Your task to perform on an android device: Open ESPN.com Image 0: 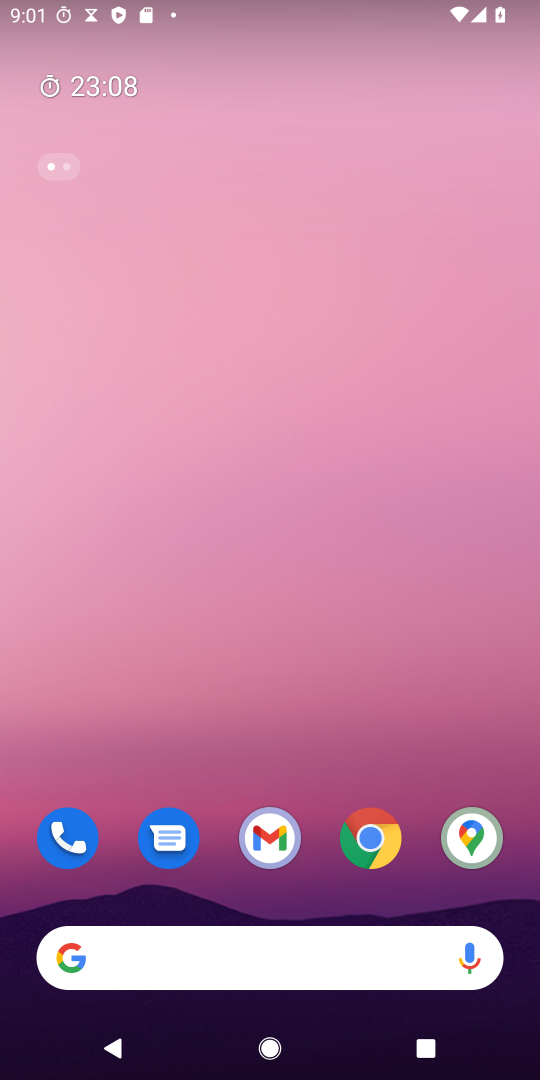
Step 0: press home button
Your task to perform on an android device: Open ESPN.com Image 1: 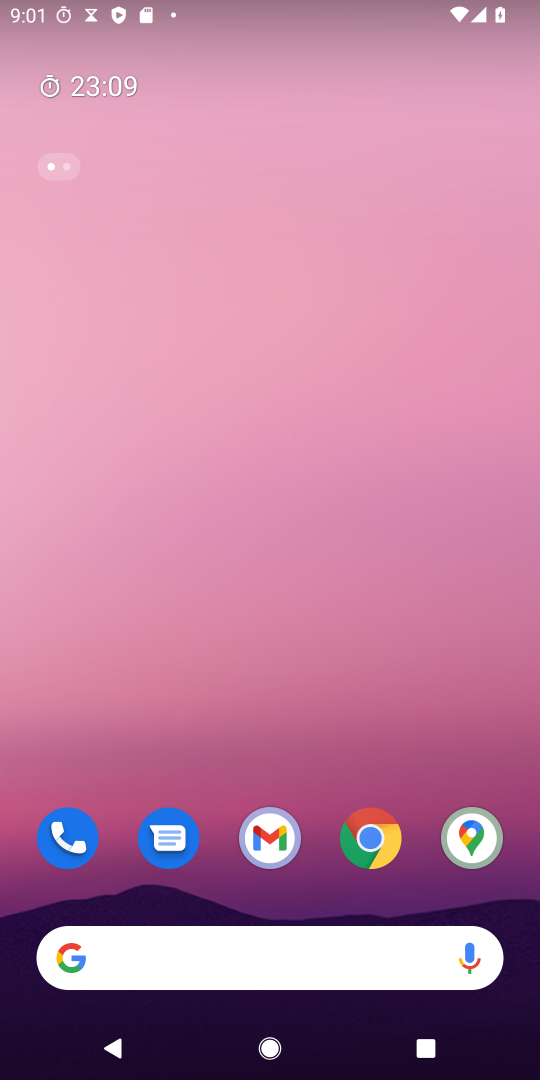
Step 1: drag from (222, 749) to (151, 16)
Your task to perform on an android device: Open ESPN.com Image 2: 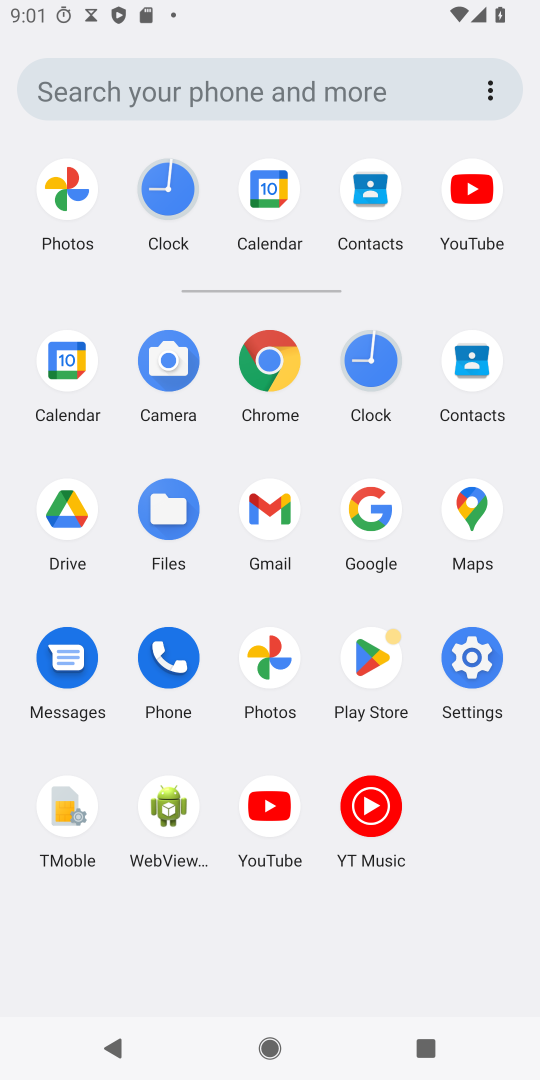
Step 2: click (229, 373)
Your task to perform on an android device: Open ESPN.com Image 3: 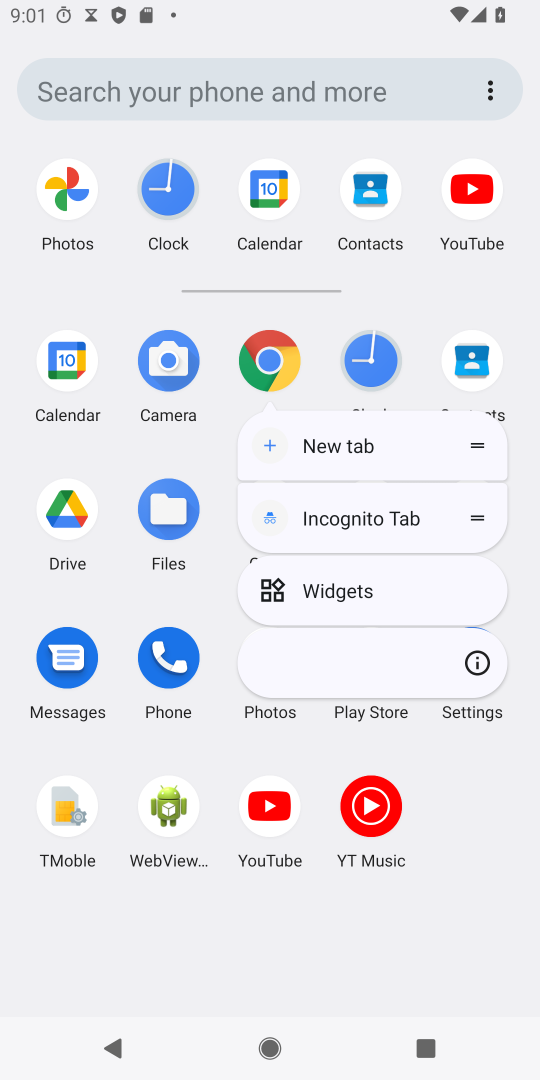
Step 3: click (266, 386)
Your task to perform on an android device: Open ESPN.com Image 4: 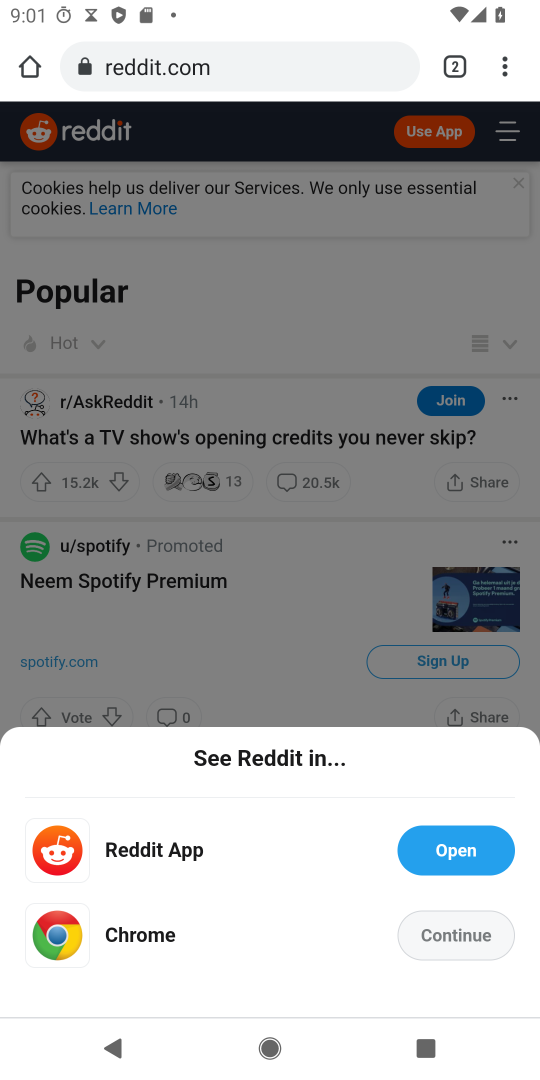
Step 4: click (209, 68)
Your task to perform on an android device: Open ESPN.com Image 5: 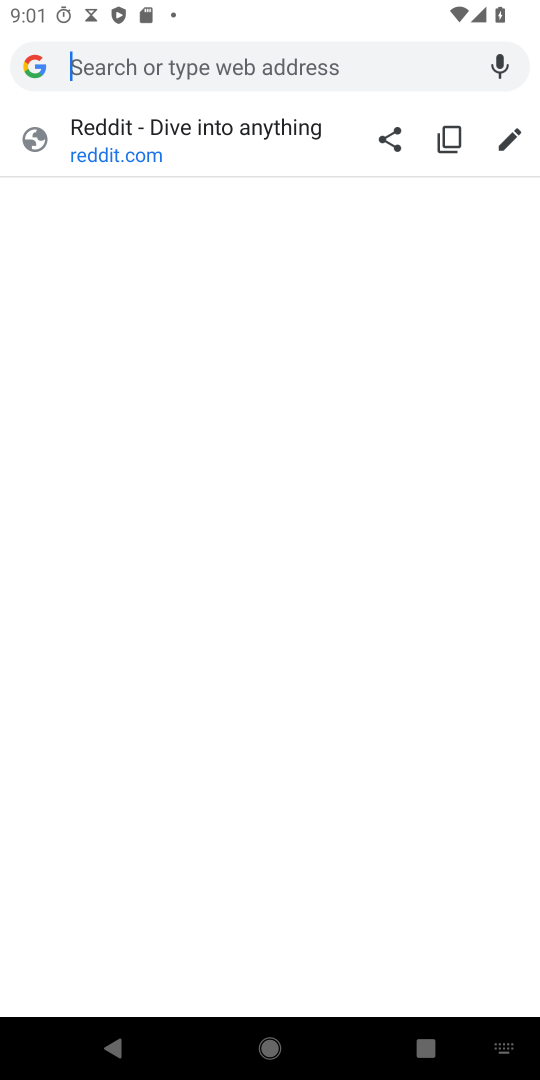
Step 5: type "ESPN.com"
Your task to perform on an android device: Open ESPN.com Image 6: 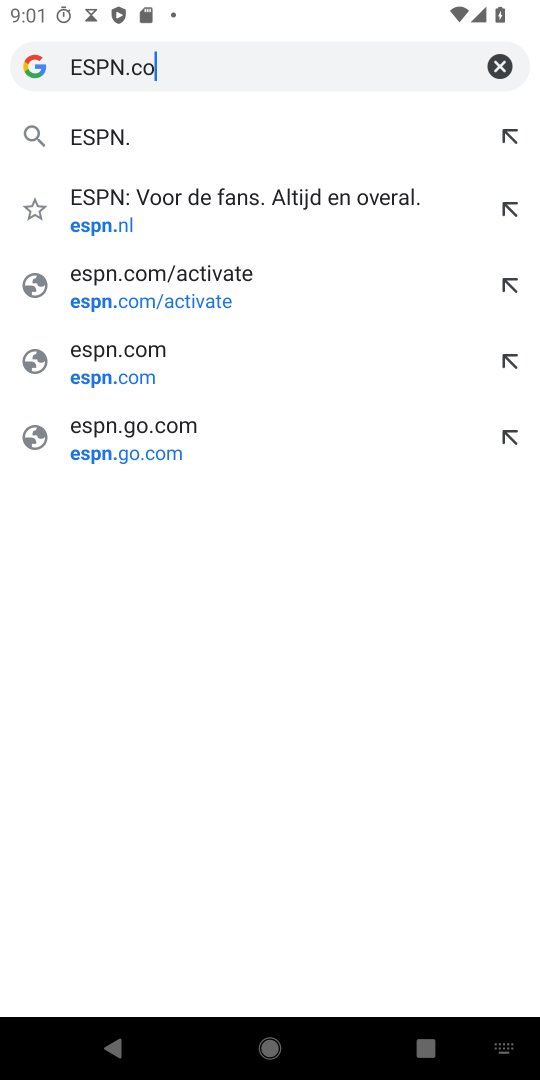
Step 6: type ""
Your task to perform on an android device: Open ESPN.com Image 7: 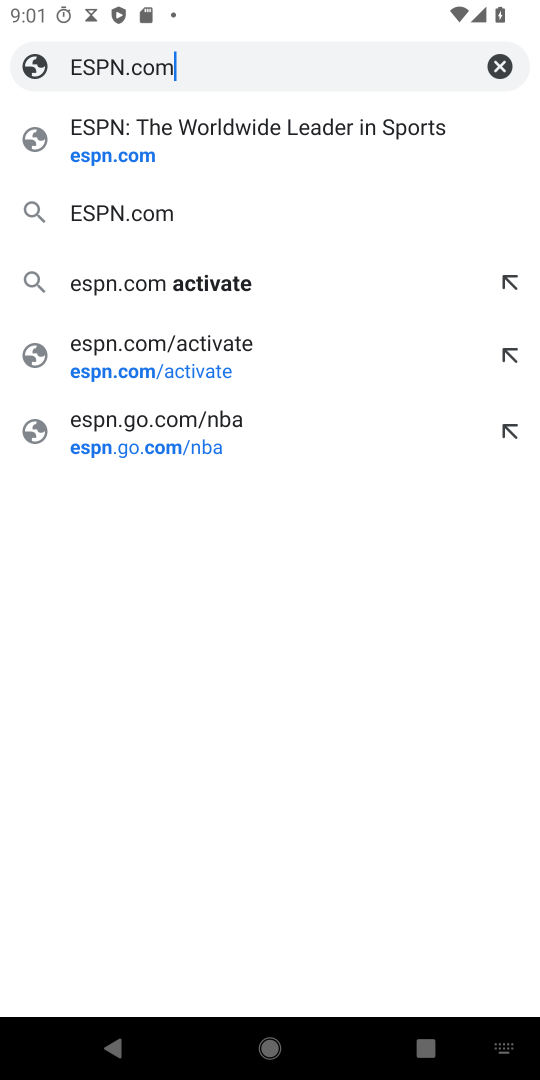
Step 7: click (103, 144)
Your task to perform on an android device: Open ESPN.com Image 8: 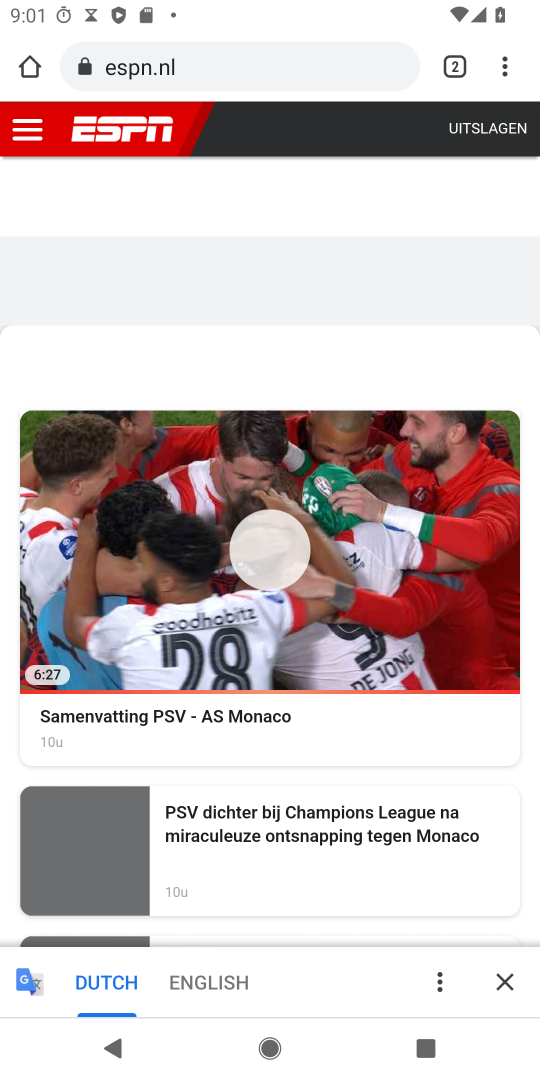
Step 8: task complete